Your task to perform on an android device: Go to Yahoo.com Image 0: 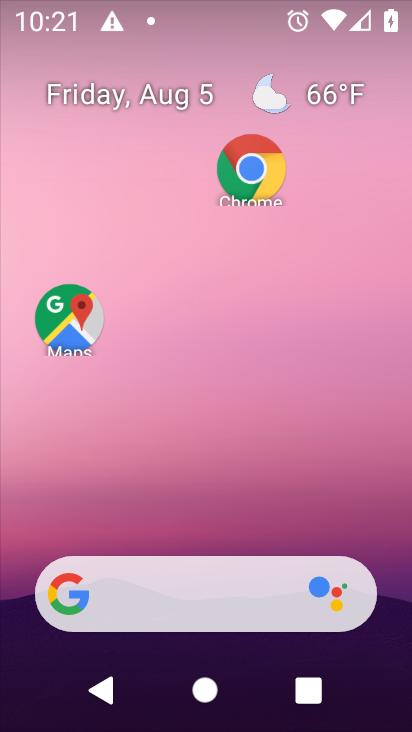
Step 0: click (267, 203)
Your task to perform on an android device: Go to Yahoo.com Image 1: 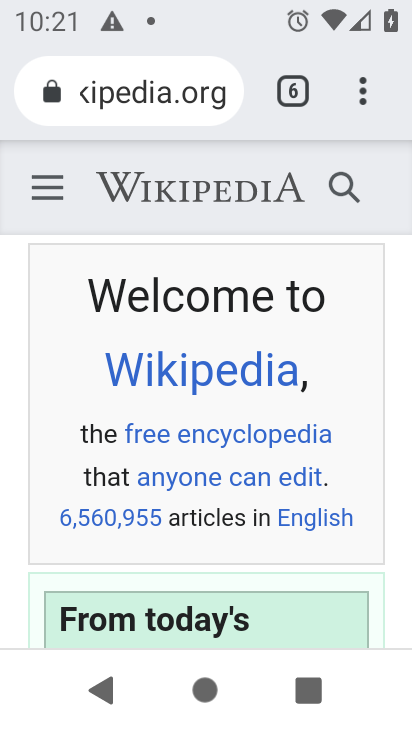
Step 1: click (287, 90)
Your task to perform on an android device: Go to Yahoo.com Image 2: 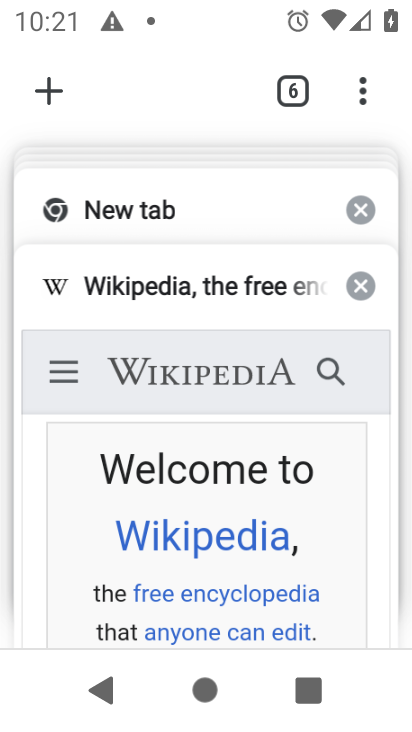
Step 2: click (52, 100)
Your task to perform on an android device: Go to Yahoo.com Image 3: 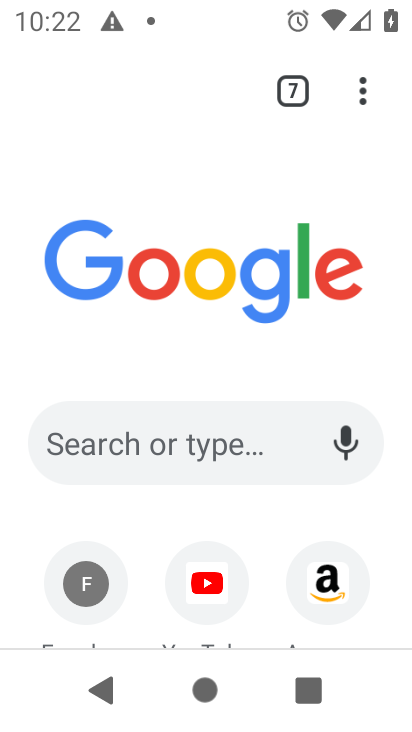
Step 3: drag from (204, 510) to (200, 145)
Your task to perform on an android device: Go to Yahoo.com Image 4: 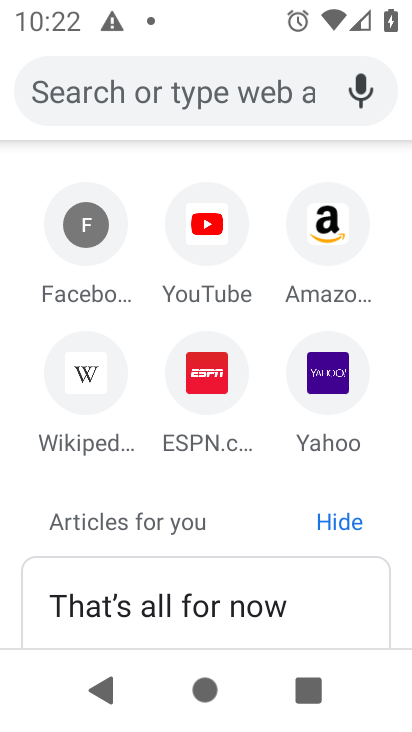
Step 4: click (323, 388)
Your task to perform on an android device: Go to Yahoo.com Image 5: 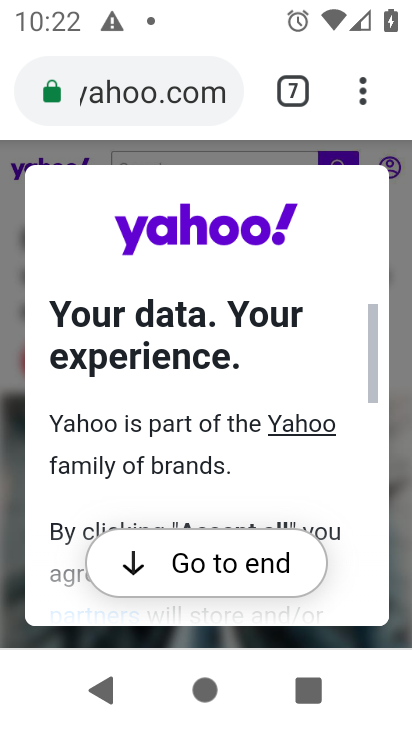
Step 5: task complete